Your task to perform on an android device: Search for vegetarian restaurants on Maps Image 0: 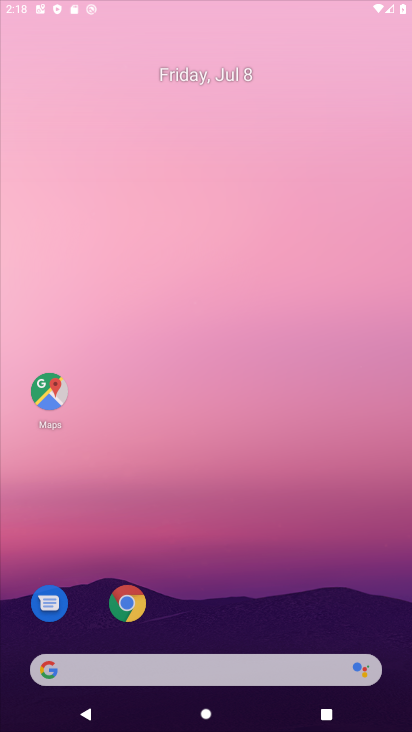
Step 0: click (341, 0)
Your task to perform on an android device: Search for vegetarian restaurants on Maps Image 1: 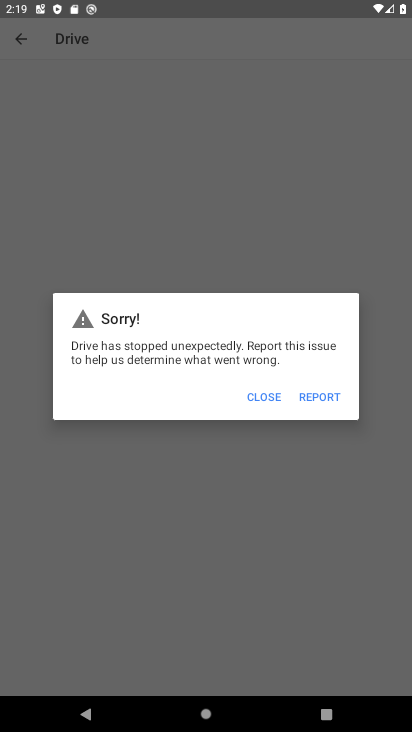
Step 1: press home button
Your task to perform on an android device: Search for vegetarian restaurants on Maps Image 2: 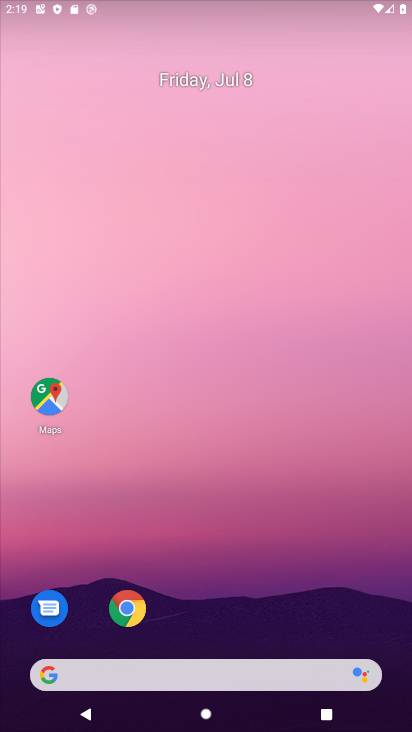
Step 2: drag from (342, 679) to (400, 0)
Your task to perform on an android device: Search for vegetarian restaurants on Maps Image 3: 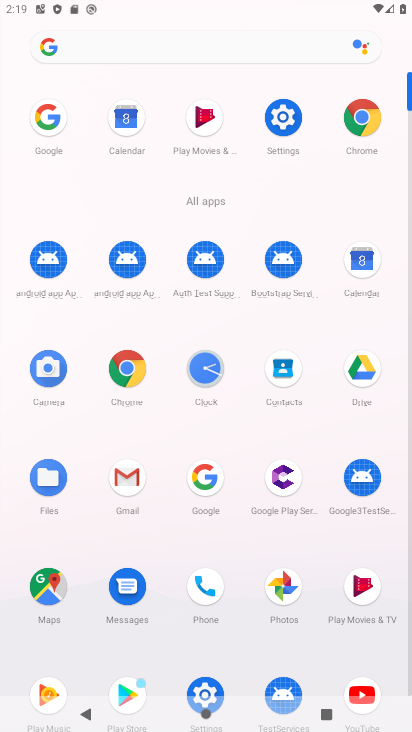
Step 3: click (52, 594)
Your task to perform on an android device: Search for vegetarian restaurants on Maps Image 4: 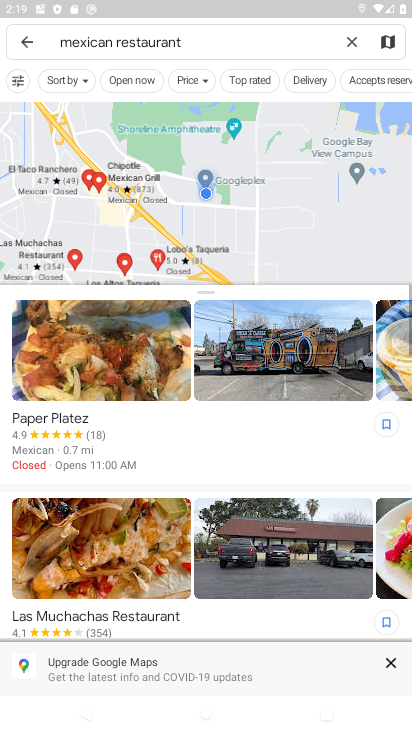
Step 4: press back button
Your task to perform on an android device: Search for vegetarian restaurants on Maps Image 5: 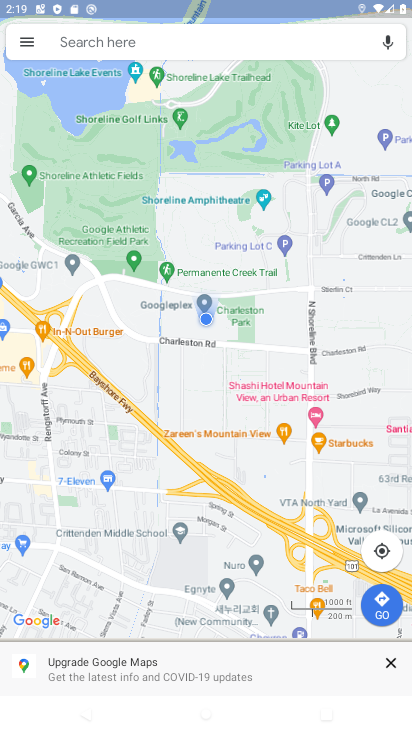
Step 5: click (100, 45)
Your task to perform on an android device: Search for vegetarian restaurants on Maps Image 6: 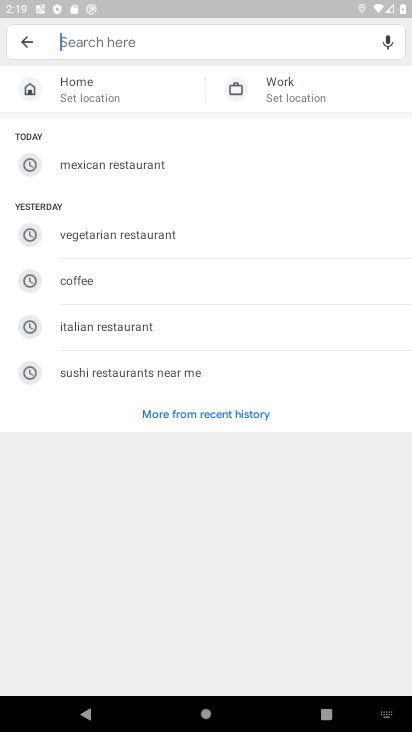
Step 6: click (109, 228)
Your task to perform on an android device: Search for vegetarian restaurants on Maps Image 7: 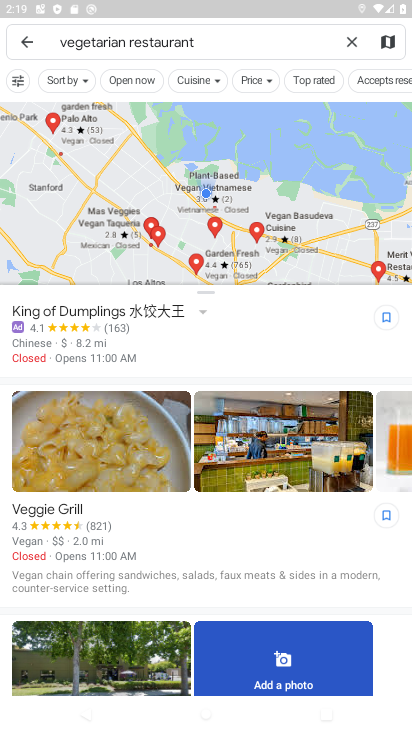
Step 7: task complete